Your task to perform on an android device: Search for Italian restaurants on Maps Image 0: 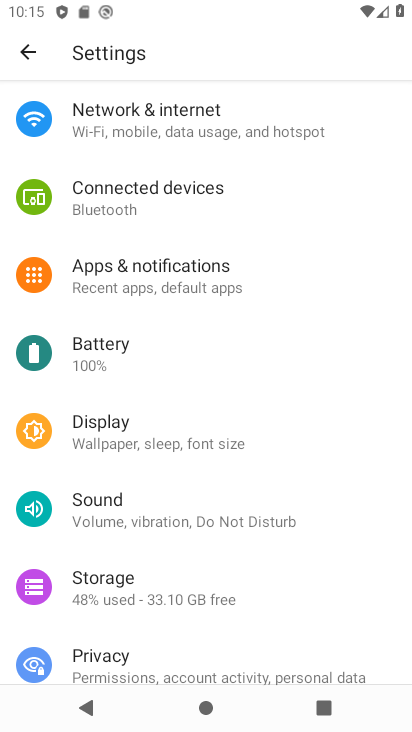
Step 0: drag from (279, 577) to (282, 233)
Your task to perform on an android device: Search for Italian restaurants on Maps Image 1: 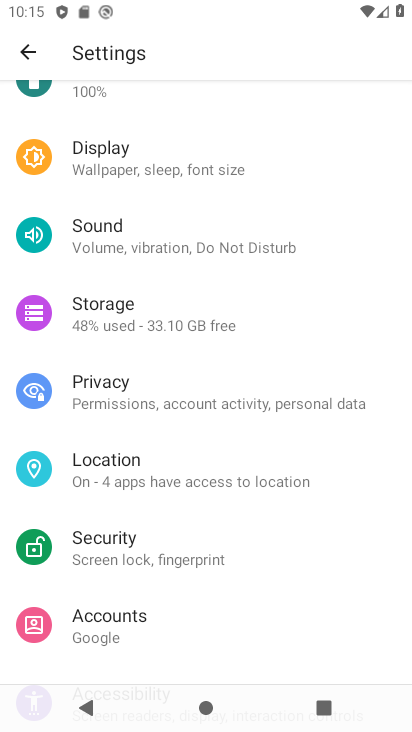
Step 1: press home button
Your task to perform on an android device: Search for Italian restaurants on Maps Image 2: 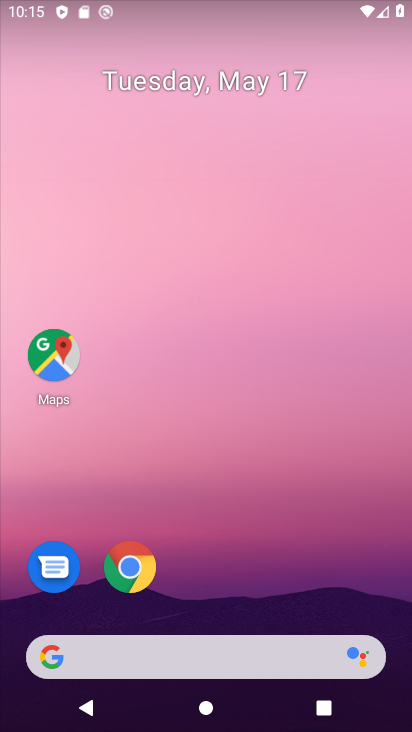
Step 2: click (45, 368)
Your task to perform on an android device: Search for Italian restaurants on Maps Image 3: 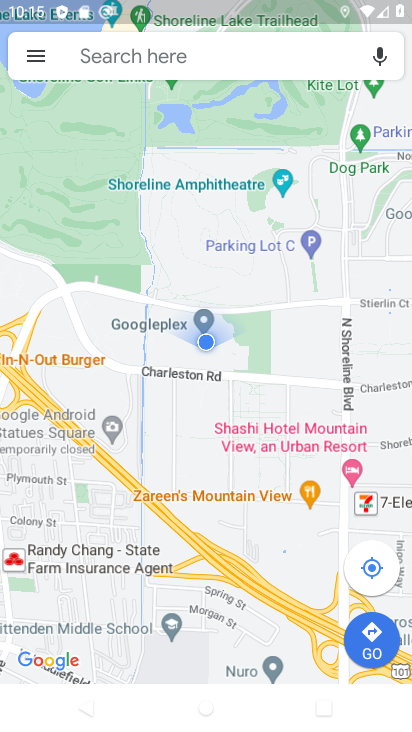
Step 3: click (185, 46)
Your task to perform on an android device: Search for Italian restaurants on Maps Image 4: 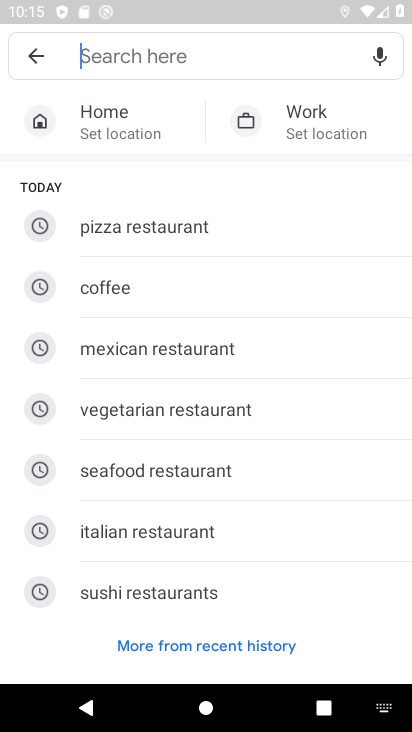
Step 4: click (146, 532)
Your task to perform on an android device: Search for Italian restaurants on Maps Image 5: 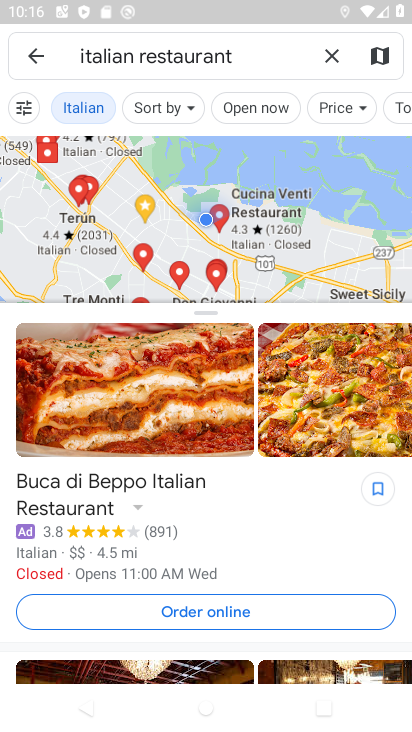
Step 5: task complete